Your task to perform on an android device: Open Google Image 0: 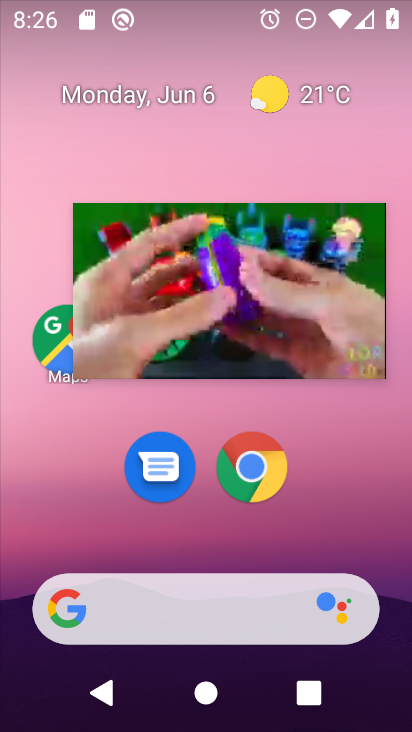
Step 0: drag from (371, 528) to (375, 99)
Your task to perform on an android device: Open Google Image 1: 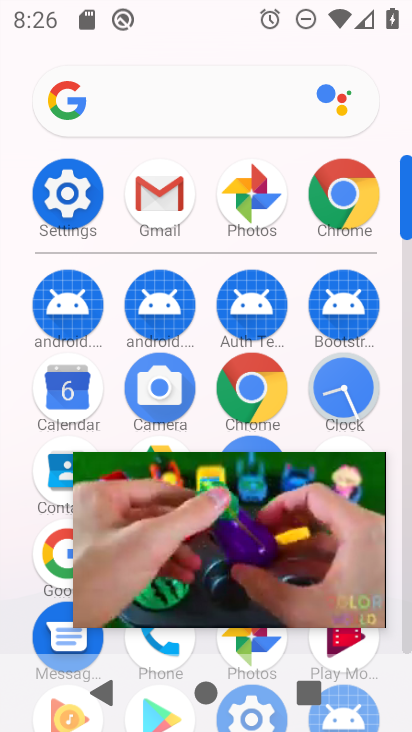
Step 1: click (50, 566)
Your task to perform on an android device: Open Google Image 2: 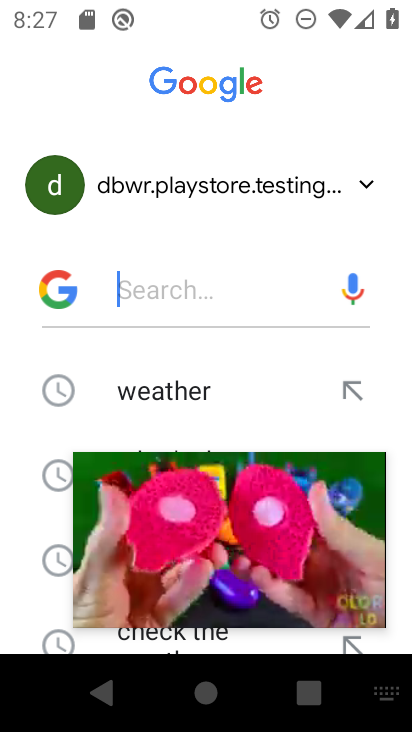
Step 2: task complete